Your task to perform on an android device: Go to Android settings Image 0: 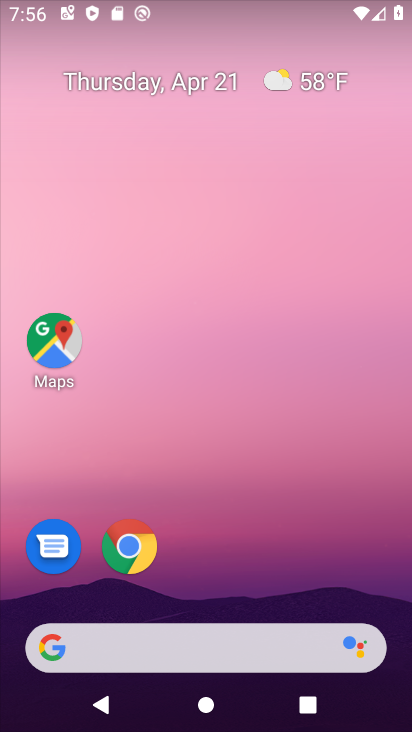
Step 0: drag from (304, 494) to (281, 85)
Your task to perform on an android device: Go to Android settings Image 1: 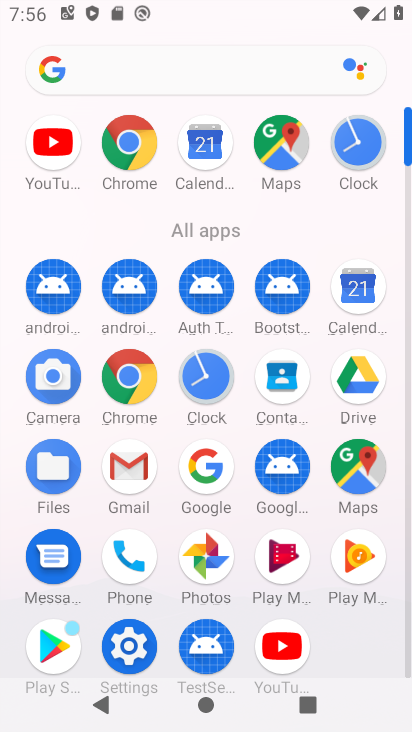
Step 1: click (127, 637)
Your task to perform on an android device: Go to Android settings Image 2: 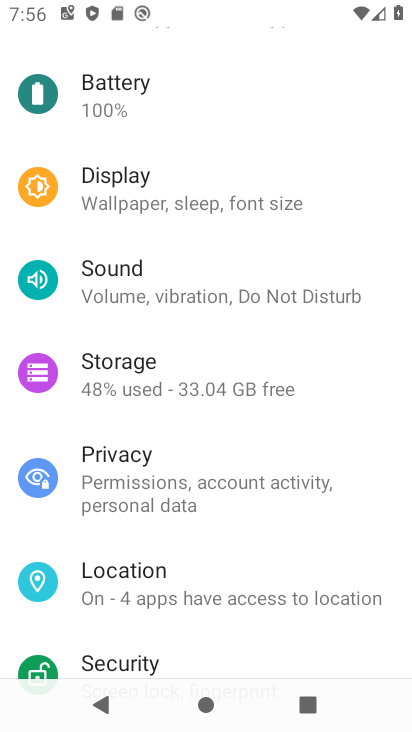
Step 2: task complete